Your task to perform on an android device: Go to Yahoo.com Image 0: 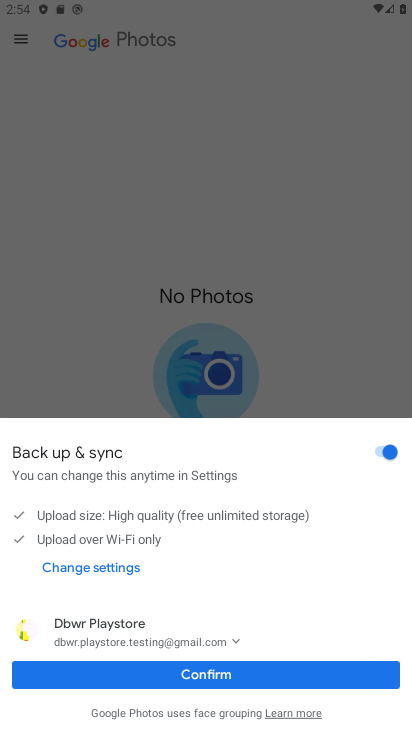
Step 0: press home button
Your task to perform on an android device: Go to Yahoo.com Image 1: 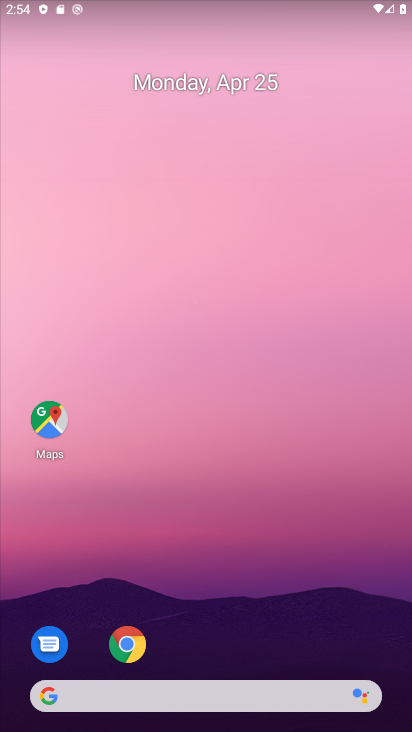
Step 1: click (133, 648)
Your task to perform on an android device: Go to Yahoo.com Image 2: 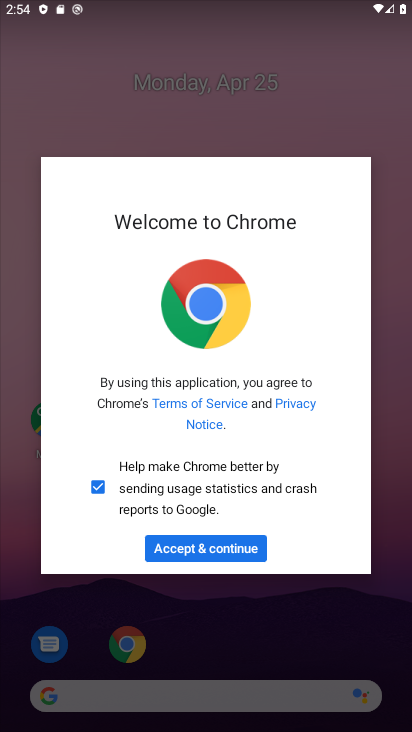
Step 2: click (246, 540)
Your task to perform on an android device: Go to Yahoo.com Image 3: 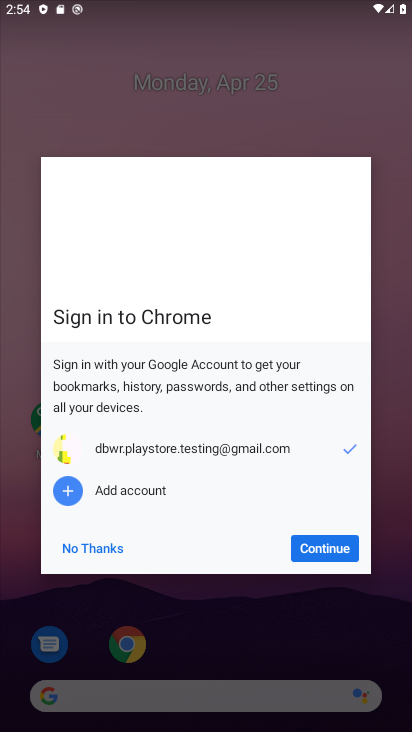
Step 3: click (306, 549)
Your task to perform on an android device: Go to Yahoo.com Image 4: 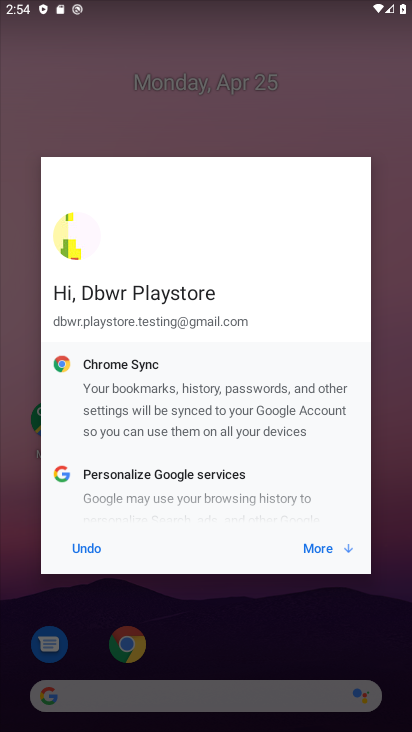
Step 4: click (306, 549)
Your task to perform on an android device: Go to Yahoo.com Image 5: 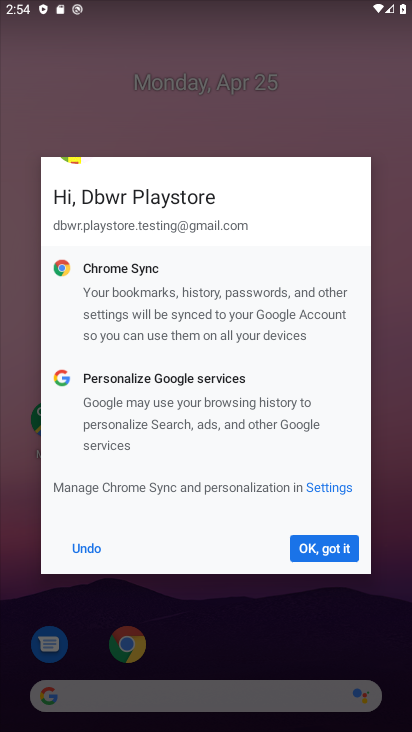
Step 5: click (306, 549)
Your task to perform on an android device: Go to Yahoo.com Image 6: 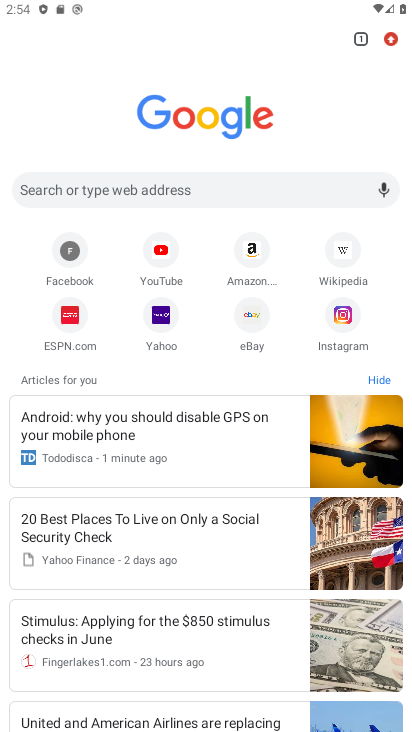
Step 6: click (160, 326)
Your task to perform on an android device: Go to Yahoo.com Image 7: 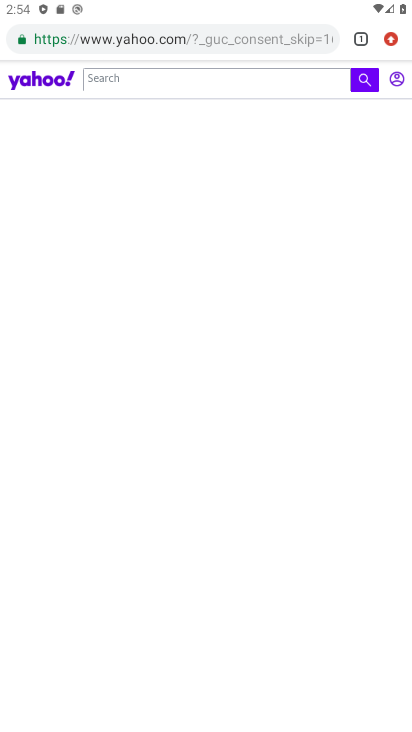
Step 7: task complete